Your task to perform on an android device: Check my gmail Image 0: 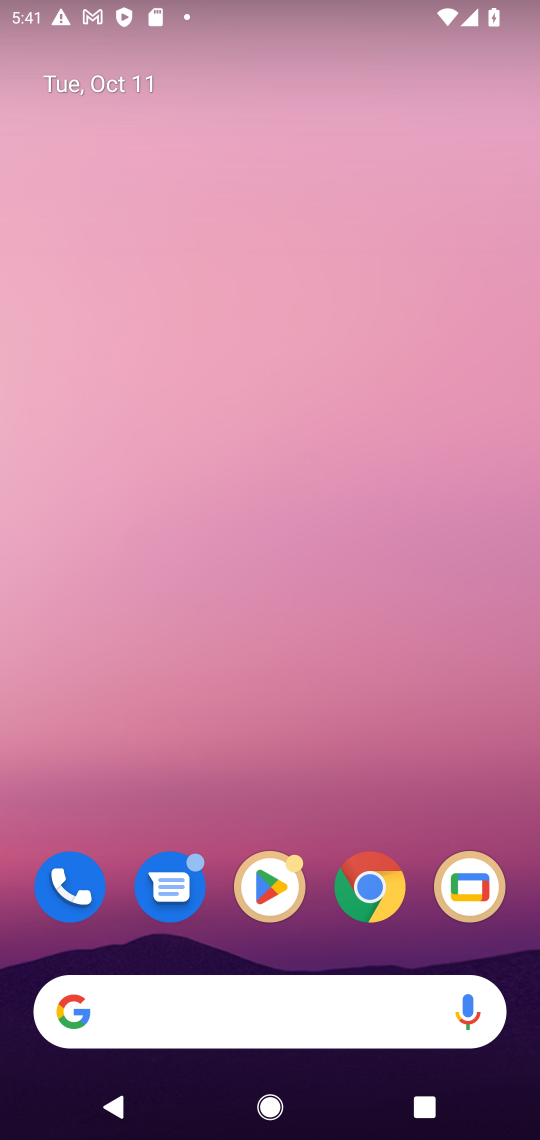
Step 0: drag from (262, 923) to (319, 129)
Your task to perform on an android device: Check my gmail Image 1: 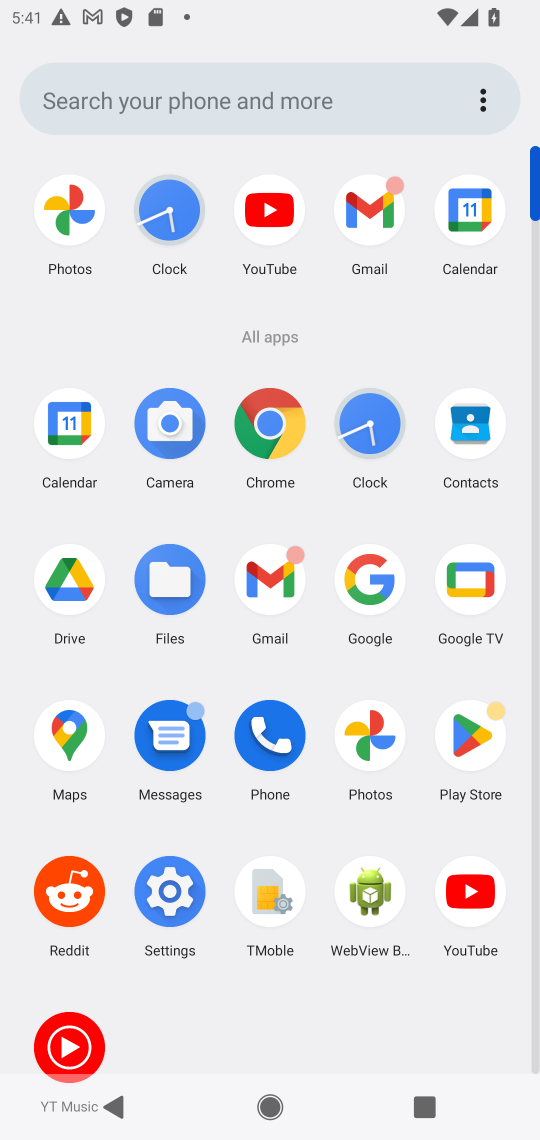
Step 1: click (347, 200)
Your task to perform on an android device: Check my gmail Image 2: 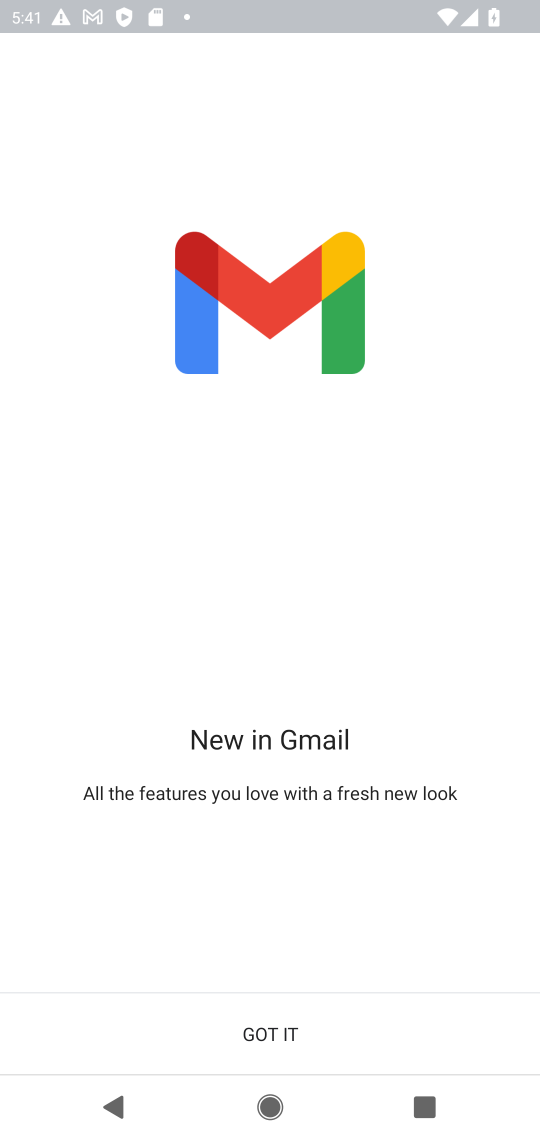
Step 2: click (264, 1028)
Your task to perform on an android device: Check my gmail Image 3: 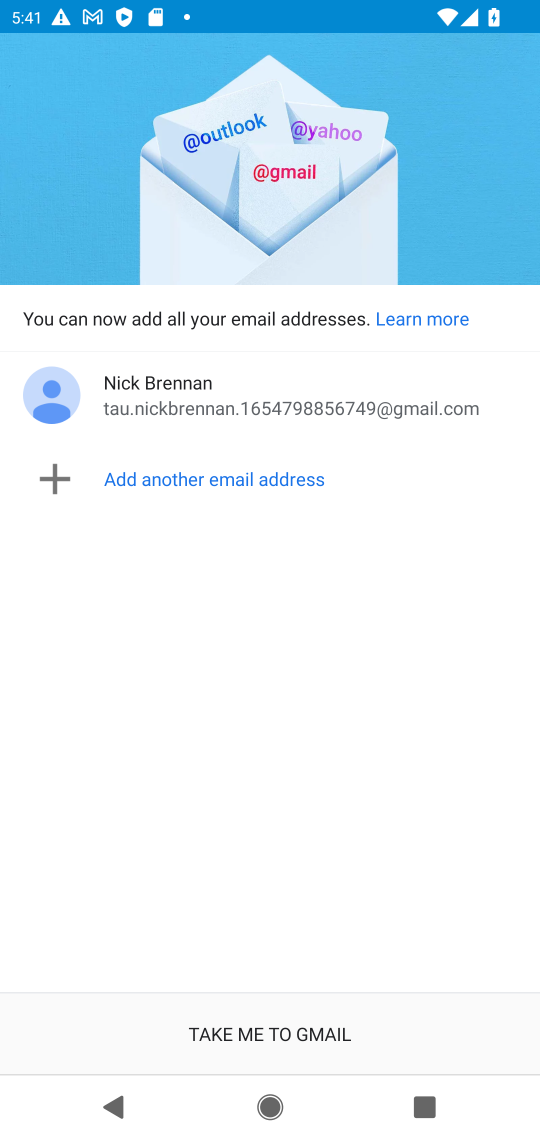
Step 3: click (264, 1028)
Your task to perform on an android device: Check my gmail Image 4: 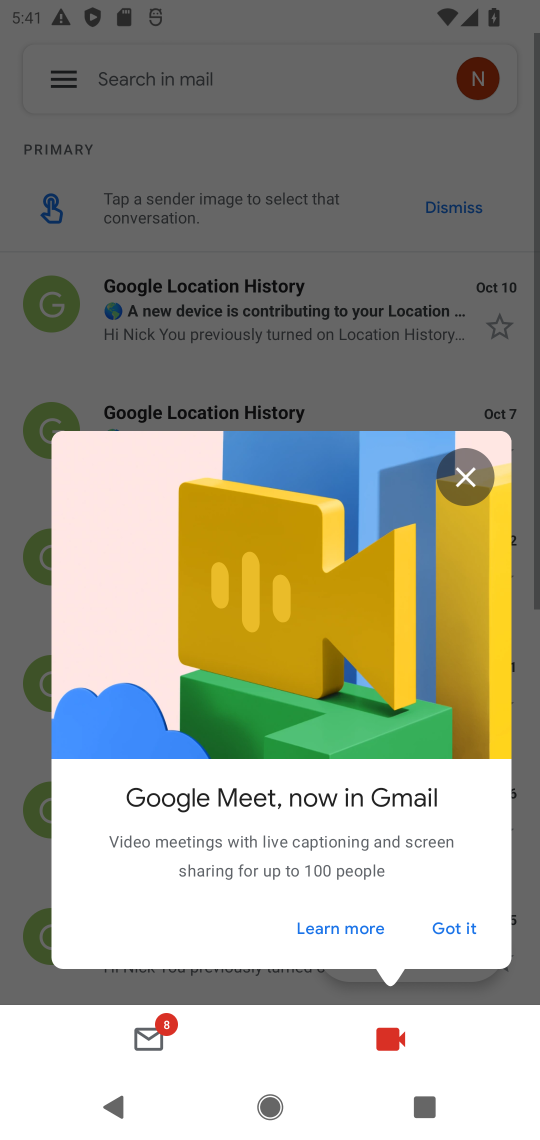
Step 4: click (455, 923)
Your task to perform on an android device: Check my gmail Image 5: 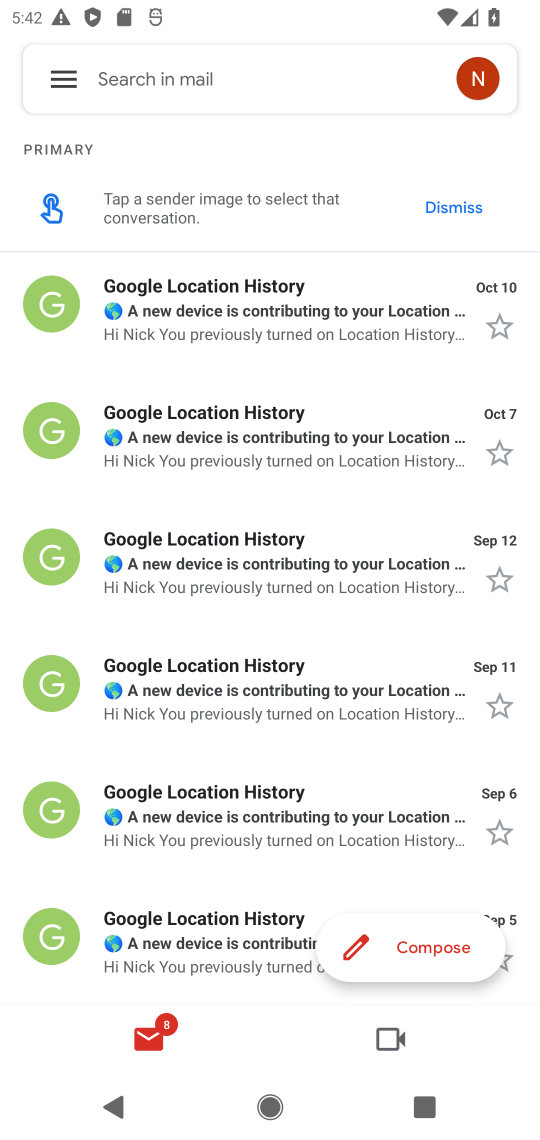
Step 5: task complete